Your task to perform on an android device: Open Maps and search for coffee Image 0: 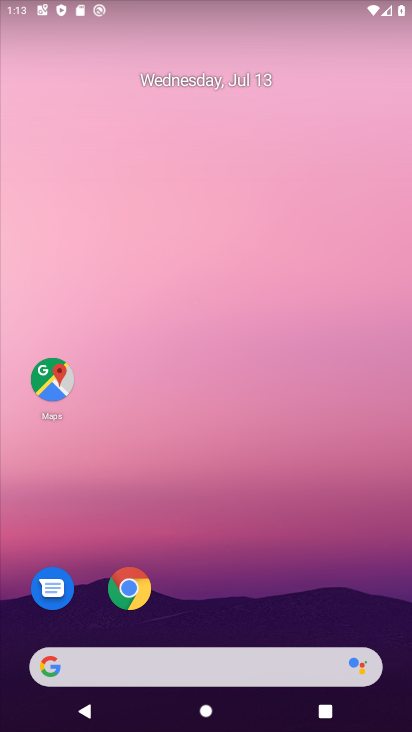
Step 0: click (64, 381)
Your task to perform on an android device: Open Maps and search for coffee Image 1: 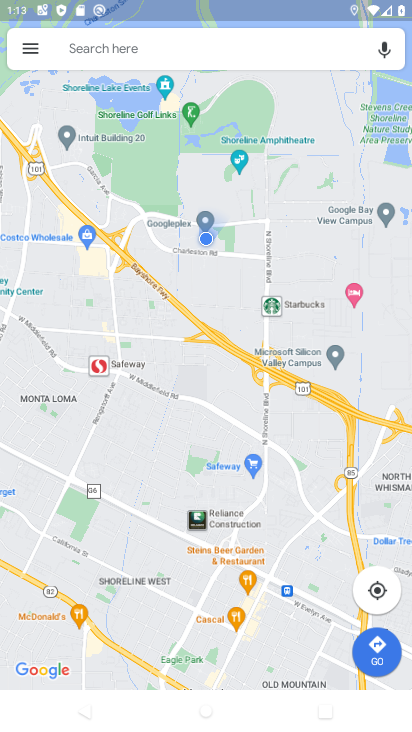
Step 1: click (96, 47)
Your task to perform on an android device: Open Maps and search for coffee Image 2: 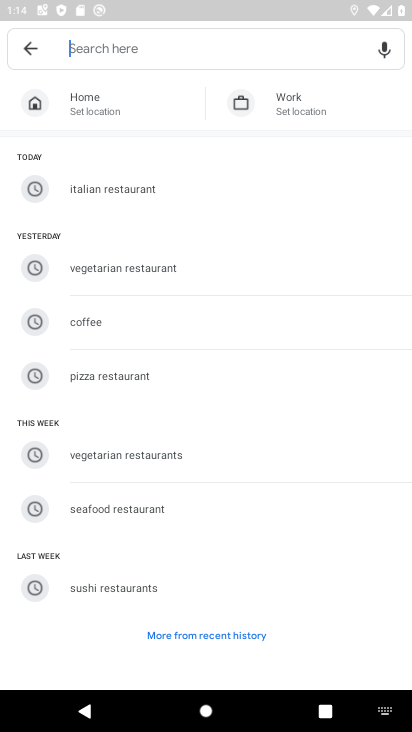
Step 2: click (87, 324)
Your task to perform on an android device: Open Maps and search for coffee Image 3: 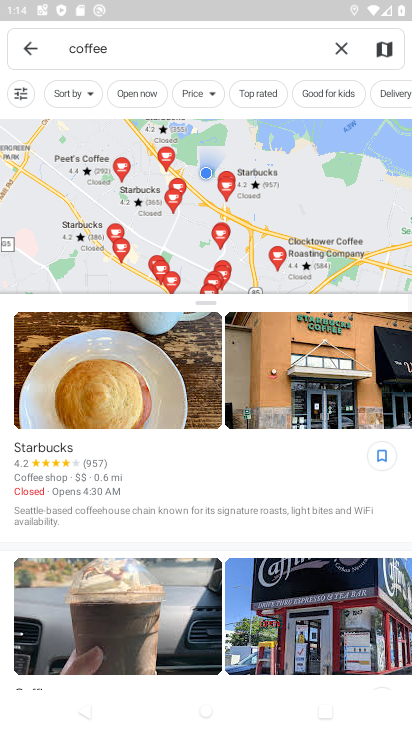
Step 3: task complete